Your task to perform on an android device: search for starred emails in the gmail app Image 0: 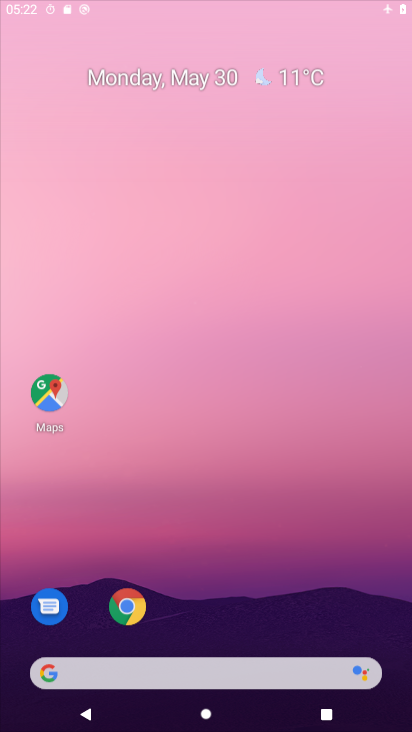
Step 0: press home button
Your task to perform on an android device: search for starred emails in the gmail app Image 1: 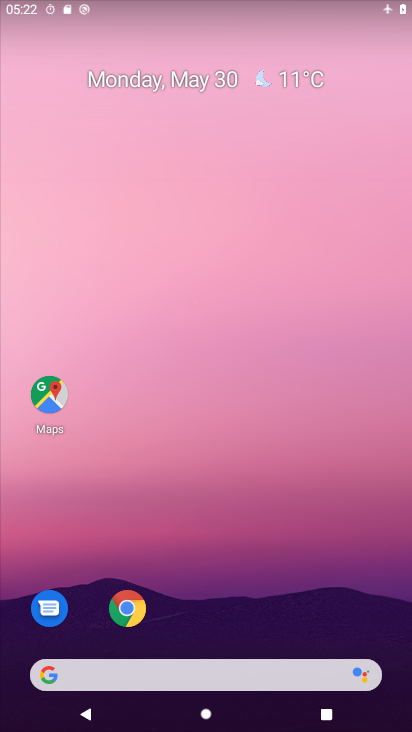
Step 1: drag from (267, 597) to (189, 51)
Your task to perform on an android device: search for starred emails in the gmail app Image 2: 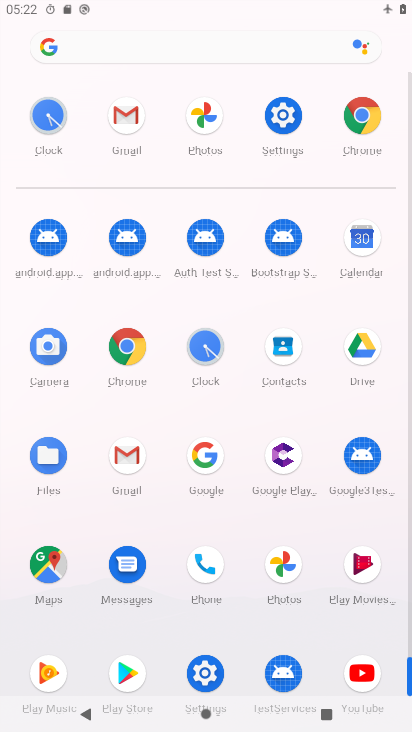
Step 2: click (120, 117)
Your task to perform on an android device: search for starred emails in the gmail app Image 3: 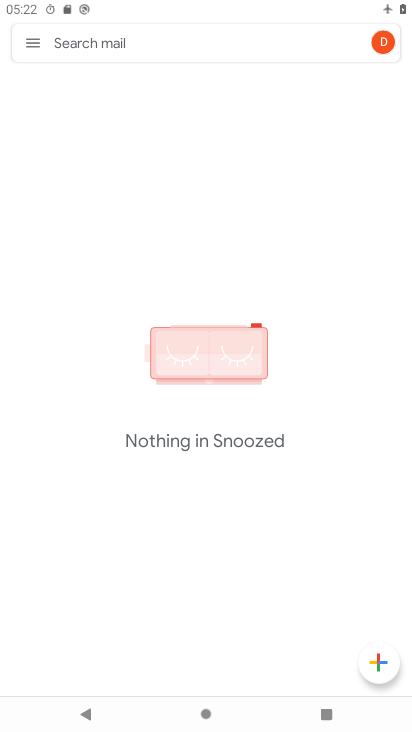
Step 3: click (152, 45)
Your task to perform on an android device: search for starred emails in the gmail app Image 4: 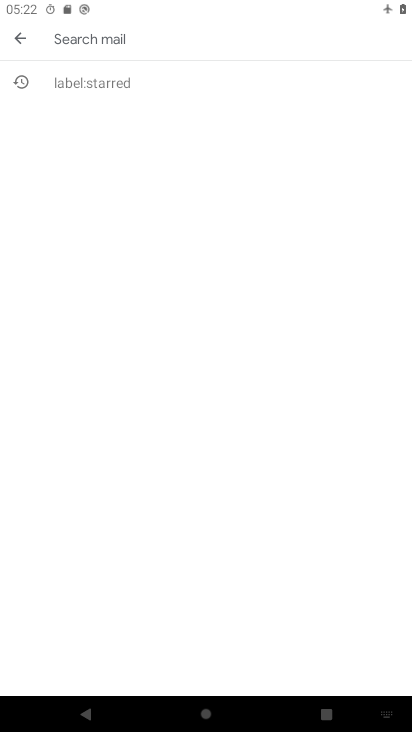
Step 4: click (141, 81)
Your task to perform on an android device: search for starred emails in the gmail app Image 5: 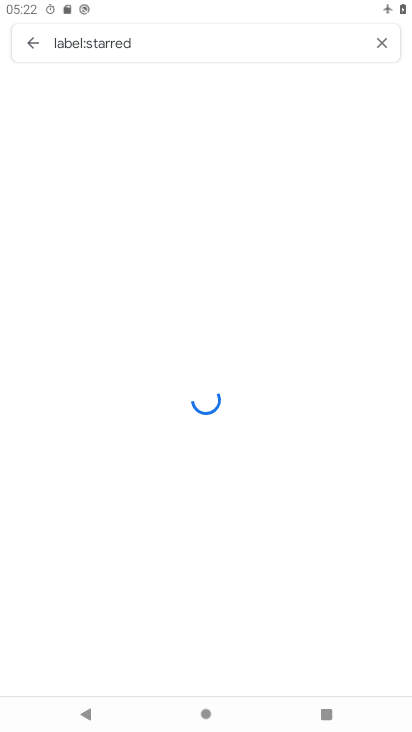
Step 5: task complete